Your task to perform on an android device: When is my next appointment? Image 0: 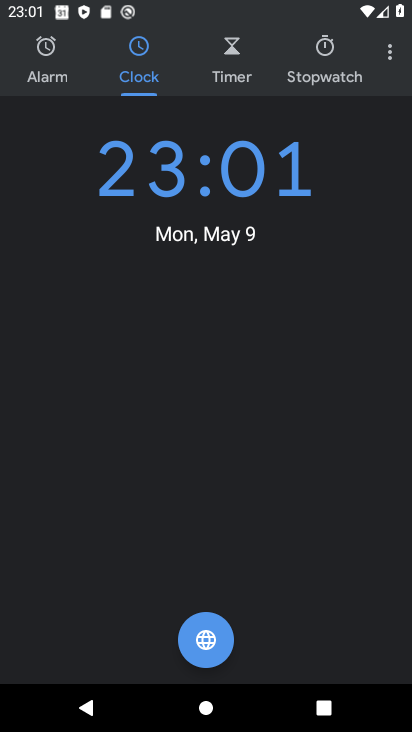
Step 0: press back button
Your task to perform on an android device: When is my next appointment? Image 1: 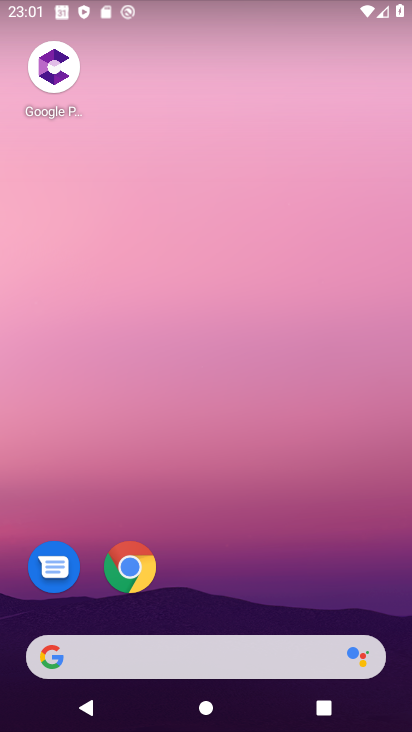
Step 1: drag from (246, 602) to (205, 94)
Your task to perform on an android device: When is my next appointment? Image 2: 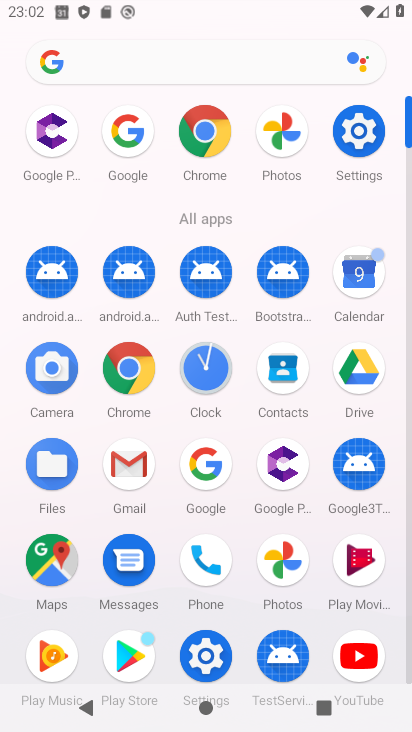
Step 2: click (357, 271)
Your task to perform on an android device: When is my next appointment? Image 3: 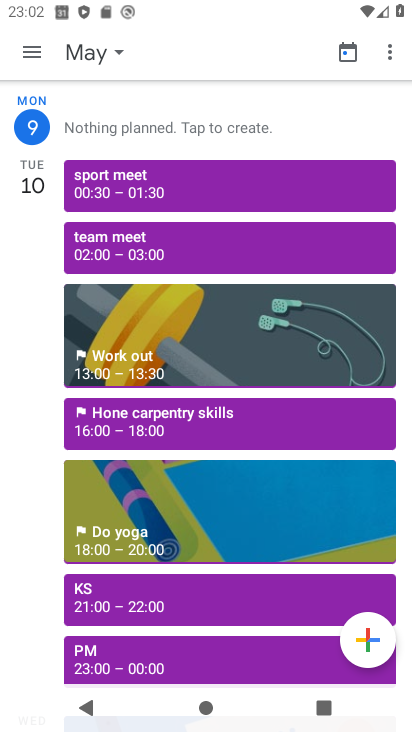
Step 3: click (115, 50)
Your task to perform on an android device: When is my next appointment? Image 4: 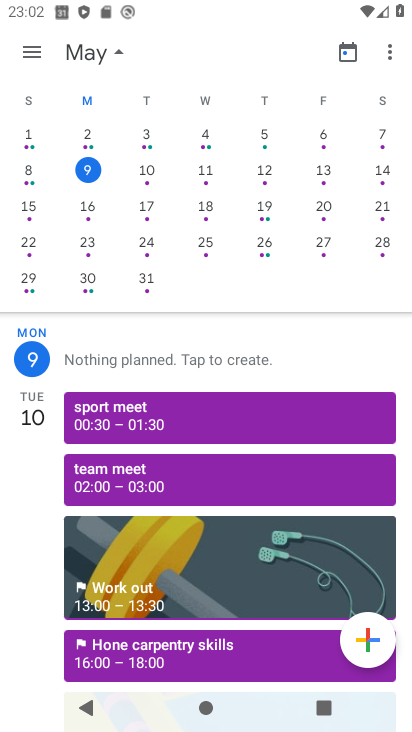
Step 4: click (150, 174)
Your task to perform on an android device: When is my next appointment? Image 5: 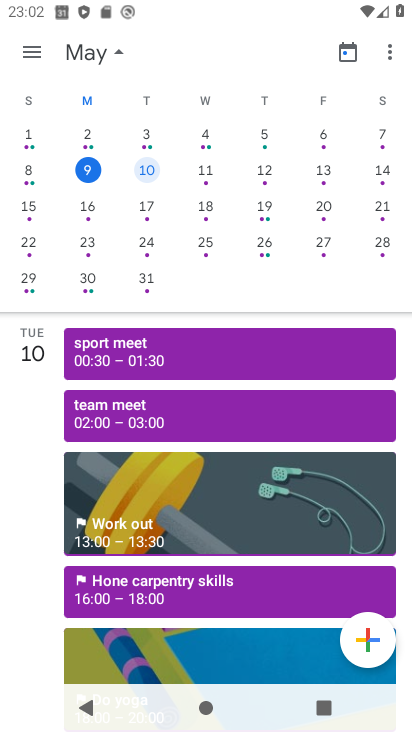
Step 5: task complete